Your task to perform on an android device: turn off javascript in the chrome app Image 0: 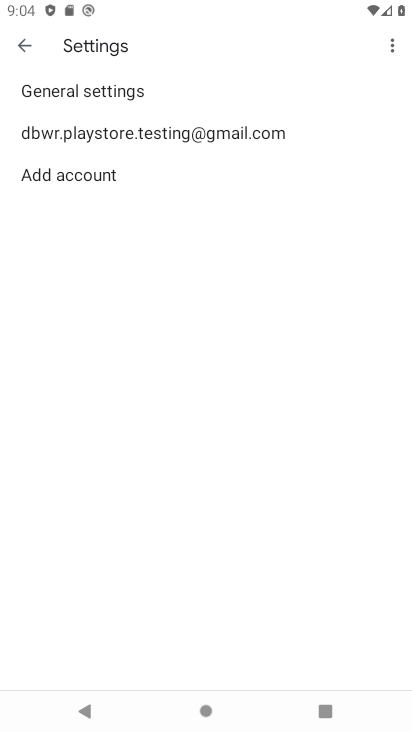
Step 0: press home button
Your task to perform on an android device: turn off javascript in the chrome app Image 1: 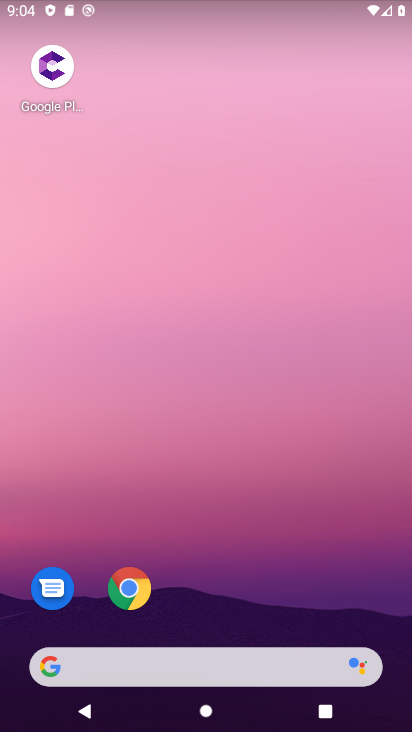
Step 1: drag from (211, 688) to (381, 202)
Your task to perform on an android device: turn off javascript in the chrome app Image 2: 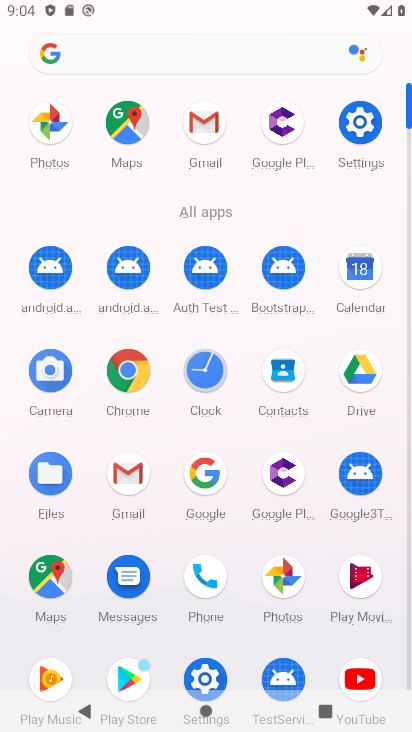
Step 2: click (126, 375)
Your task to perform on an android device: turn off javascript in the chrome app Image 3: 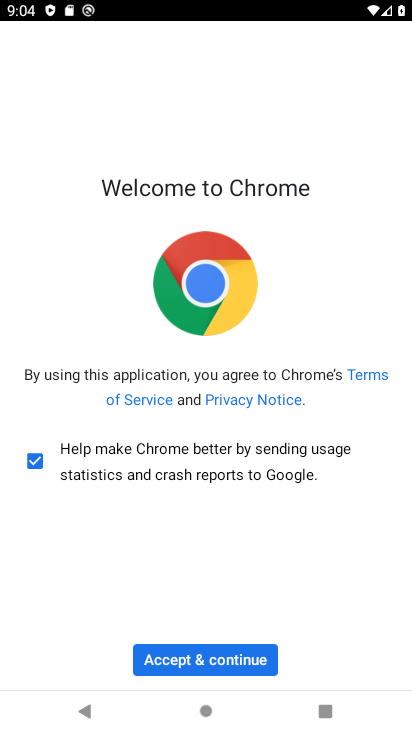
Step 3: click (181, 659)
Your task to perform on an android device: turn off javascript in the chrome app Image 4: 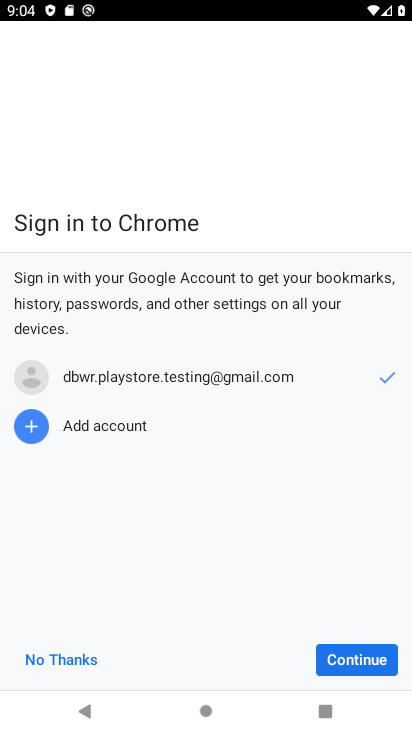
Step 4: click (357, 657)
Your task to perform on an android device: turn off javascript in the chrome app Image 5: 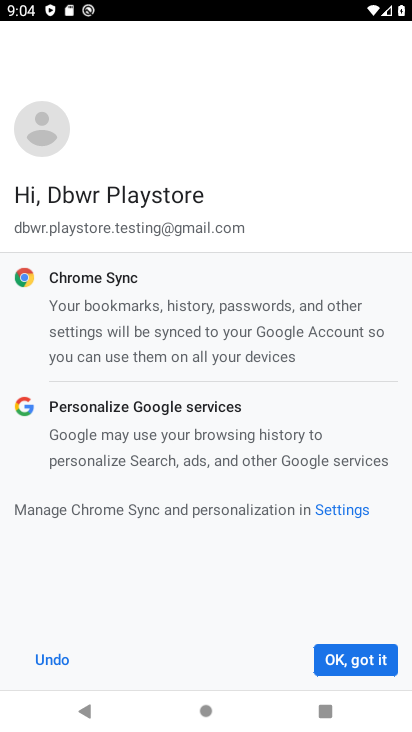
Step 5: click (355, 665)
Your task to perform on an android device: turn off javascript in the chrome app Image 6: 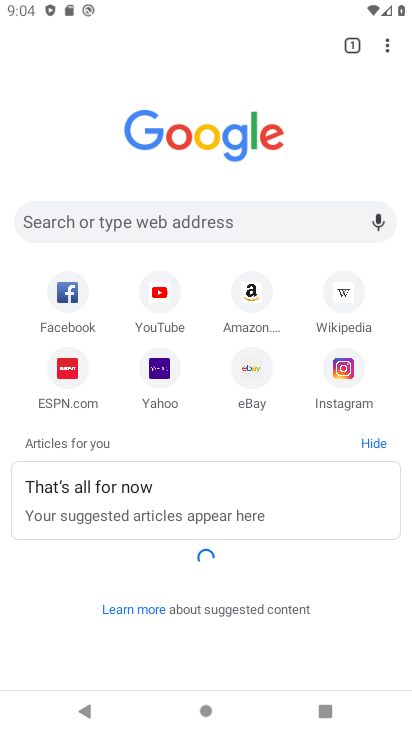
Step 6: click (380, 56)
Your task to perform on an android device: turn off javascript in the chrome app Image 7: 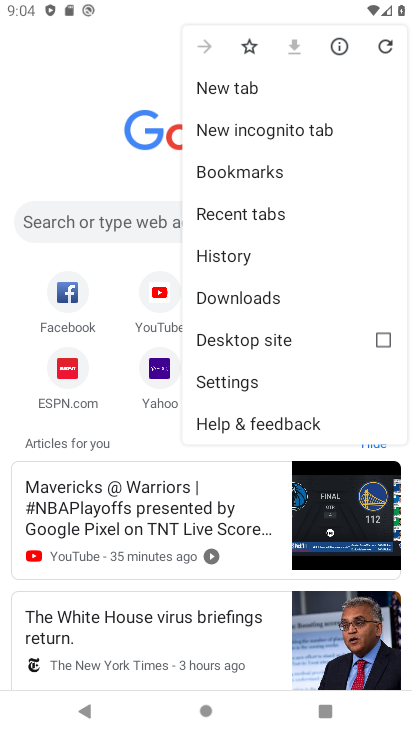
Step 7: click (218, 377)
Your task to perform on an android device: turn off javascript in the chrome app Image 8: 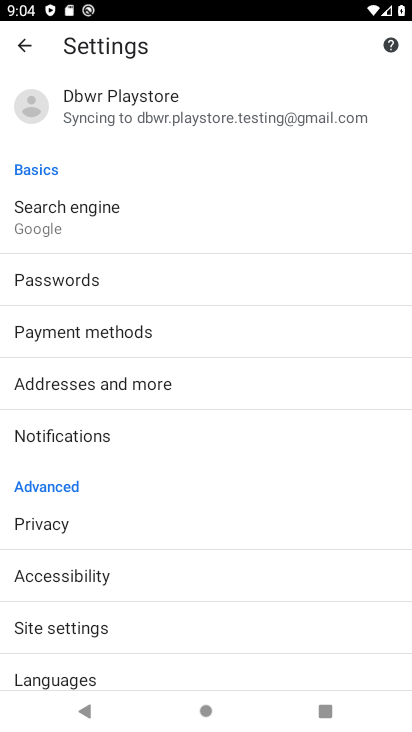
Step 8: click (83, 633)
Your task to perform on an android device: turn off javascript in the chrome app Image 9: 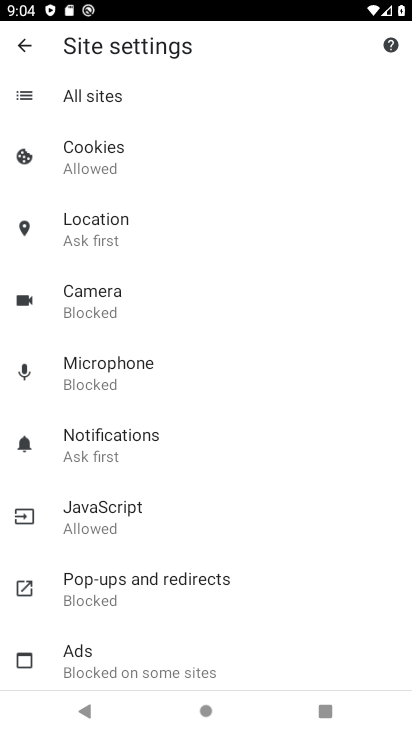
Step 9: click (153, 519)
Your task to perform on an android device: turn off javascript in the chrome app Image 10: 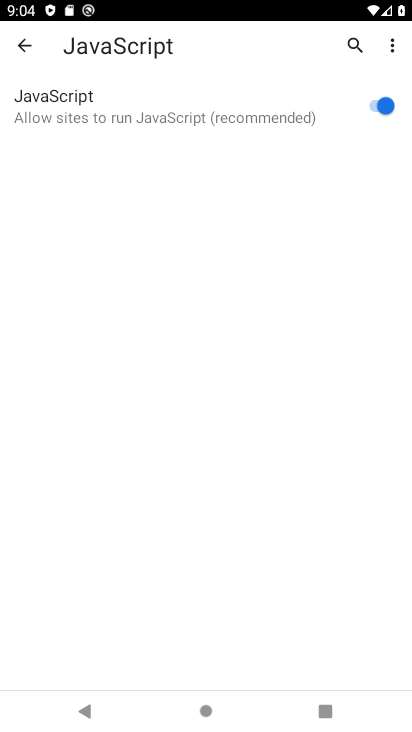
Step 10: click (364, 93)
Your task to perform on an android device: turn off javascript in the chrome app Image 11: 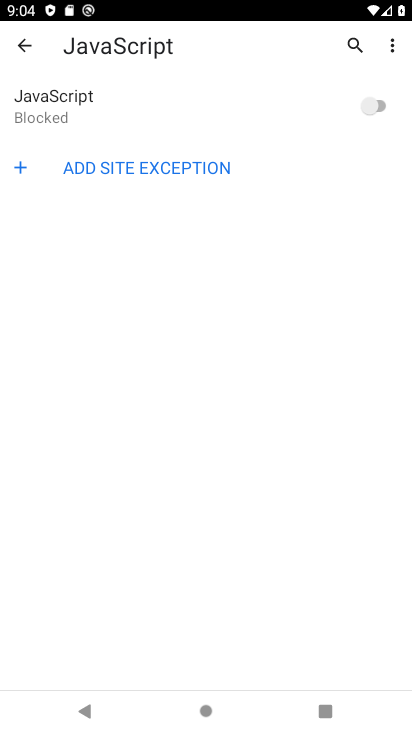
Step 11: task complete